Your task to perform on an android device: Toggle the flashlight Image 0: 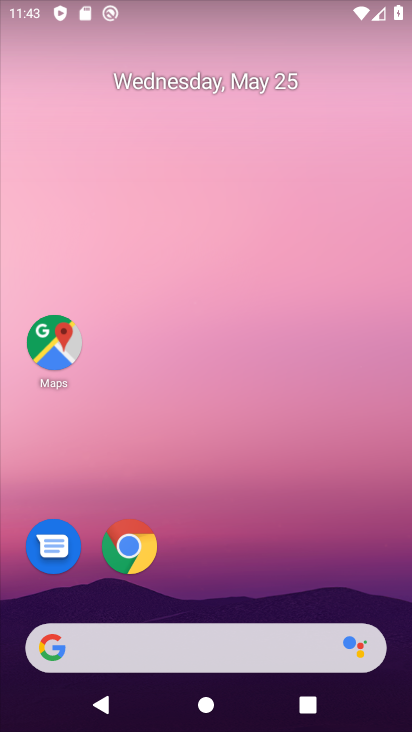
Step 0: drag from (223, 600) to (173, 202)
Your task to perform on an android device: Toggle the flashlight Image 1: 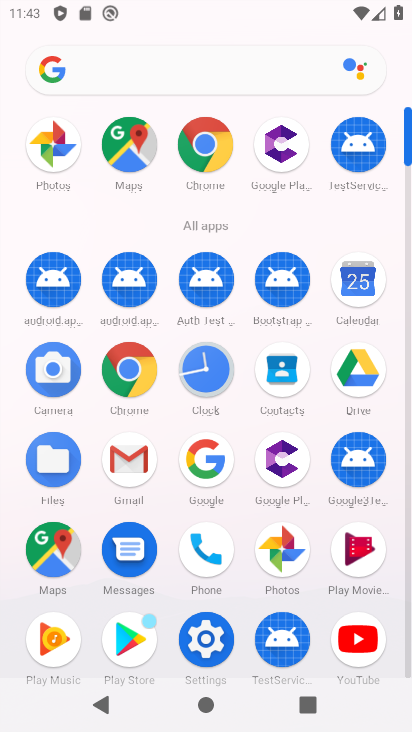
Step 1: click (198, 632)
Your task to perform on an android device: Toggle the flashlight Image 2: 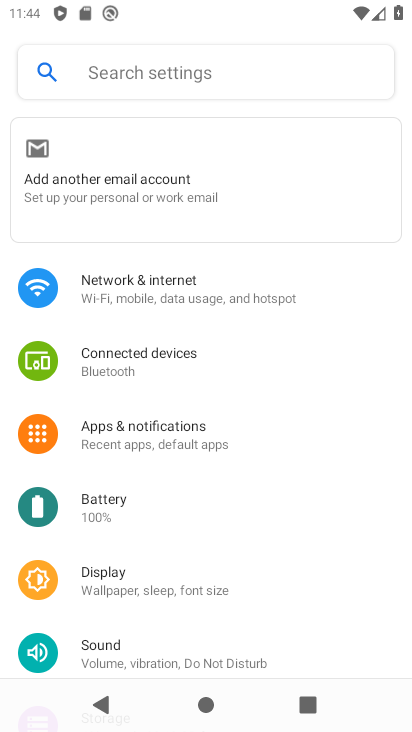
Step 2: task complete